Your task to perform on an android device: Open Google Chrome and click the shortcut for Amazon.com Image 0: 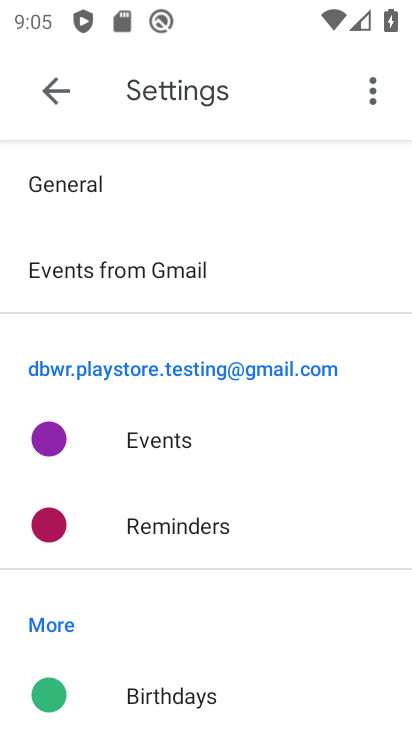
Step 0: press home button
Your task to perform on an android device: Open Google Chrome and click the shortcut for Amazon.com Image 1: 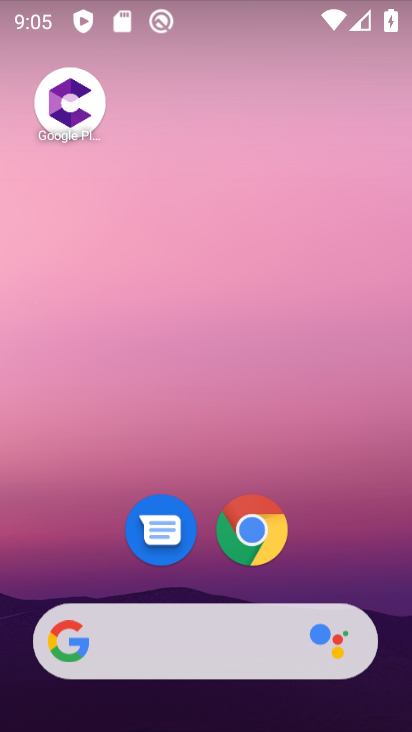
Step 1: click (257, 527)
Your task to perform on an android device: Open Google Chrome and click the shortcut for Amazon.com Image 2: 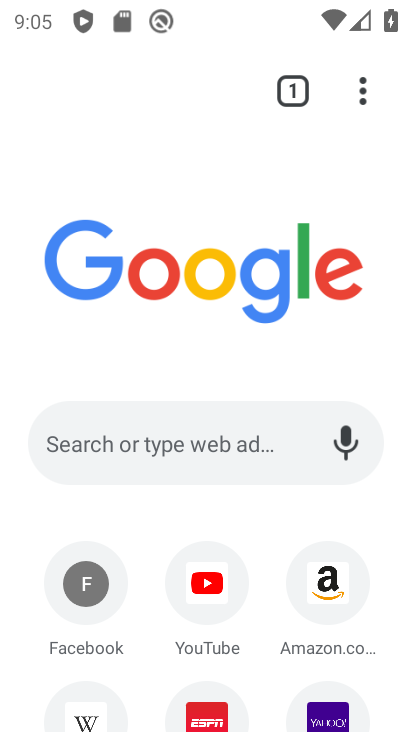
Step 2: click (340, 594)
Your task to perform on an android device: Open Google Chrome and click the shortcut for Amazon.com Image 3: 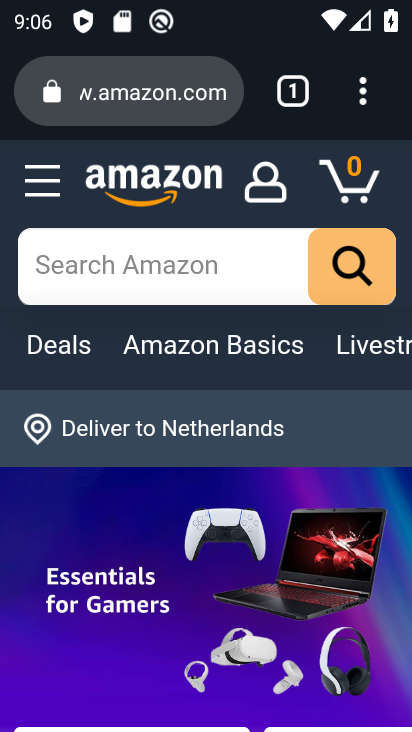
Step 3: task complete